Your task to perform on an android device: turn on improve location accuracy Image 0: 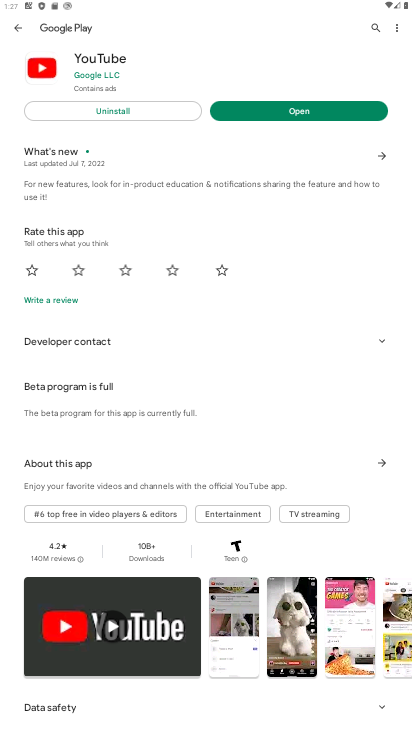
Step 0: press home button
Your task to perform on an android device: turn on improve location accuracy Image 1: 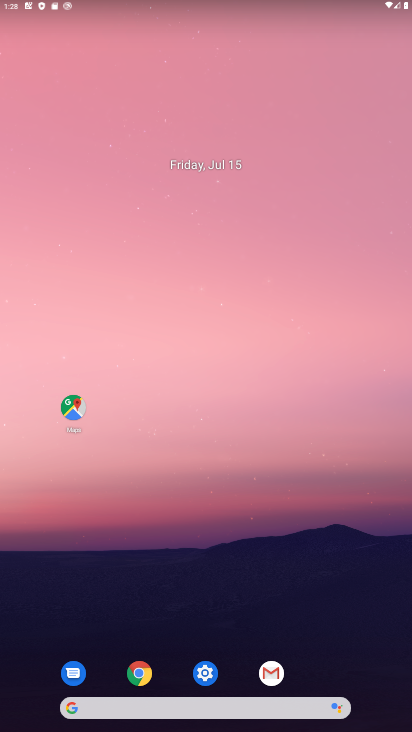
Step 1: click (208, 668)
Your task to perform on an android device: turn on improve location accuracy Image 2: 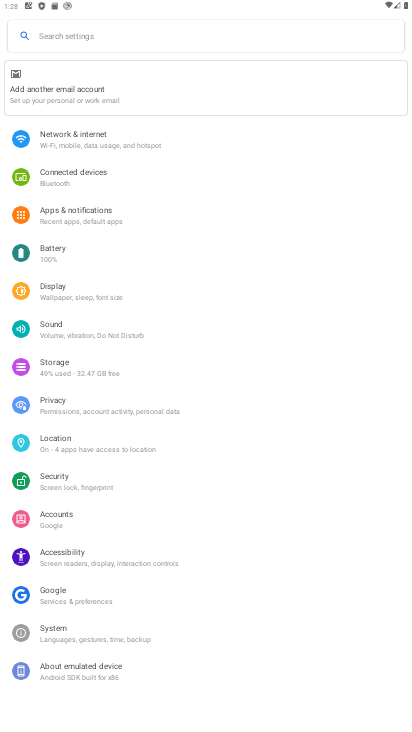
Step 2: click (71, 442)
Your task to perform on an android device: turn on improve location accuracy Image 3: 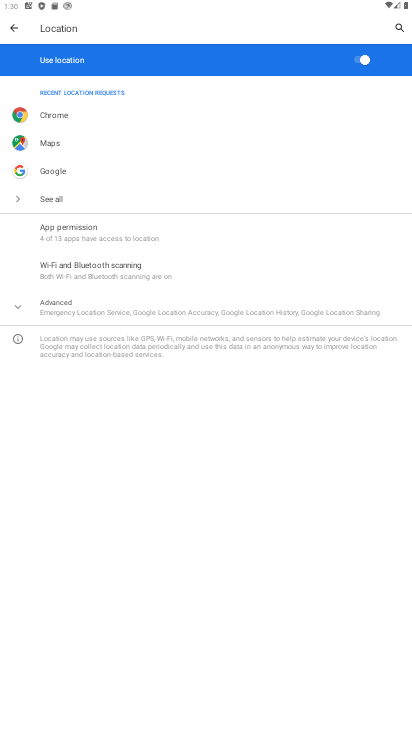
Step 3: task complete